Your task to perform on an android device: What's the weather going to be this weekend? Image 0: 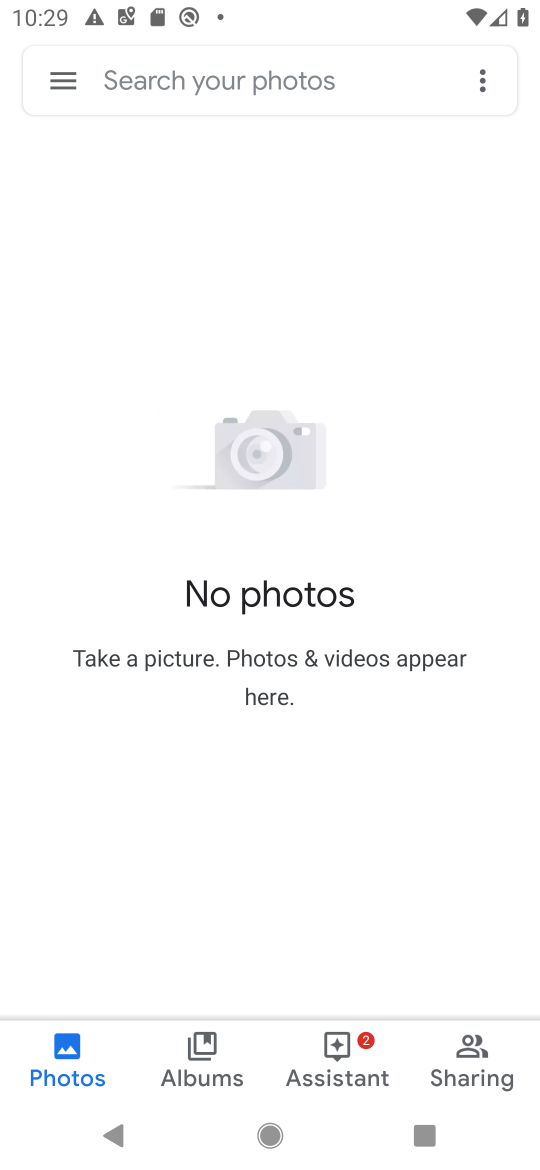
Step 0: press home button
Your task to perform on an android device: What's the weather going to be this weekend? Image 1: 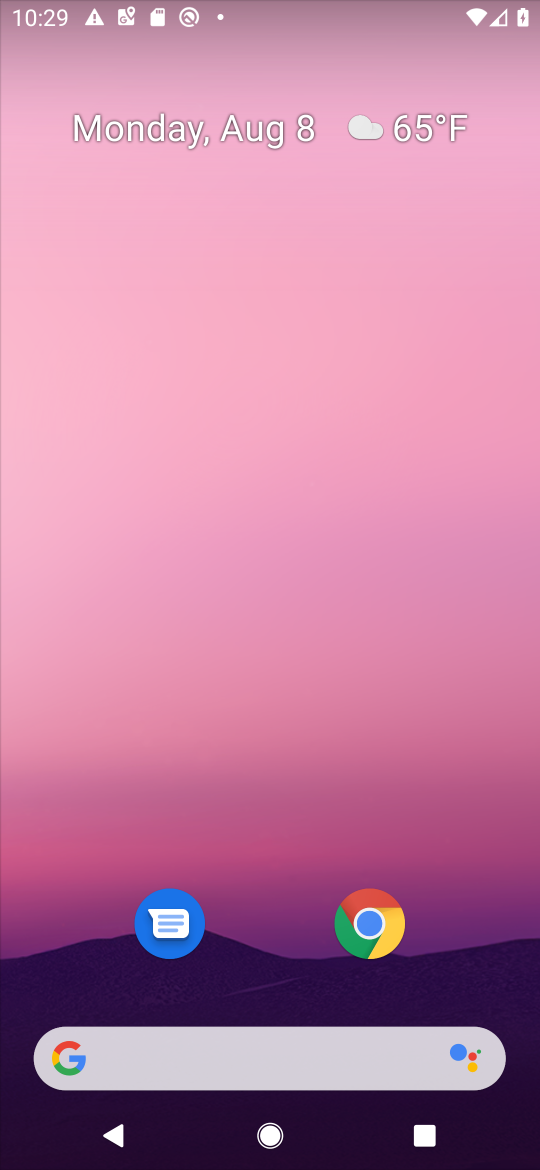
Step 1: click (108, 1054)
Your task to perform on an android device: What's the weather going to be this weekend? Image 2: 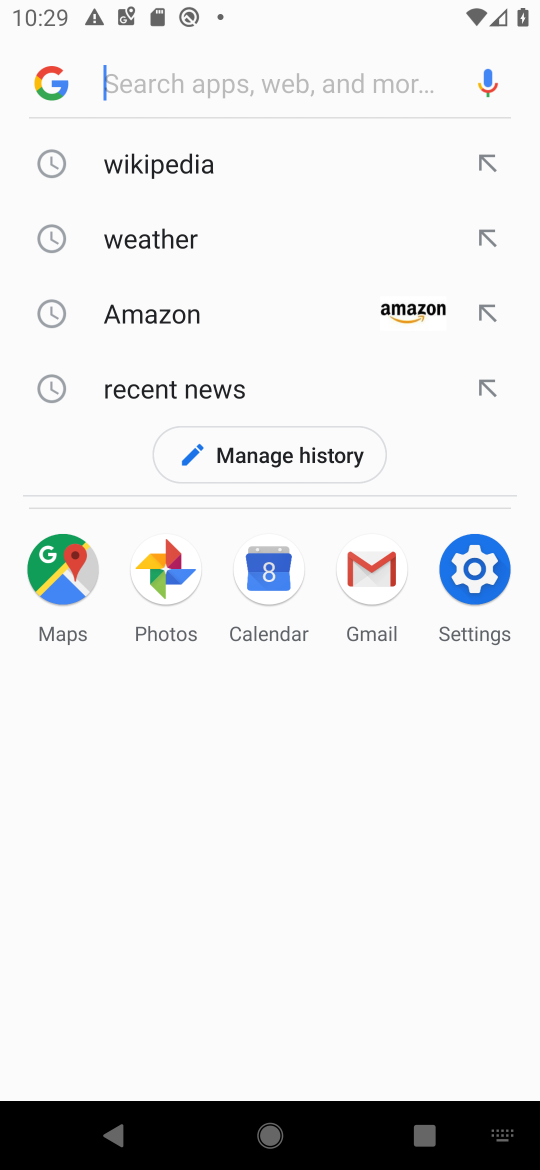
Step 2: type "What's the weather going to be this weekend?"
Your task to perform on an android device: What's the weather going to be this weekend? Image 3: 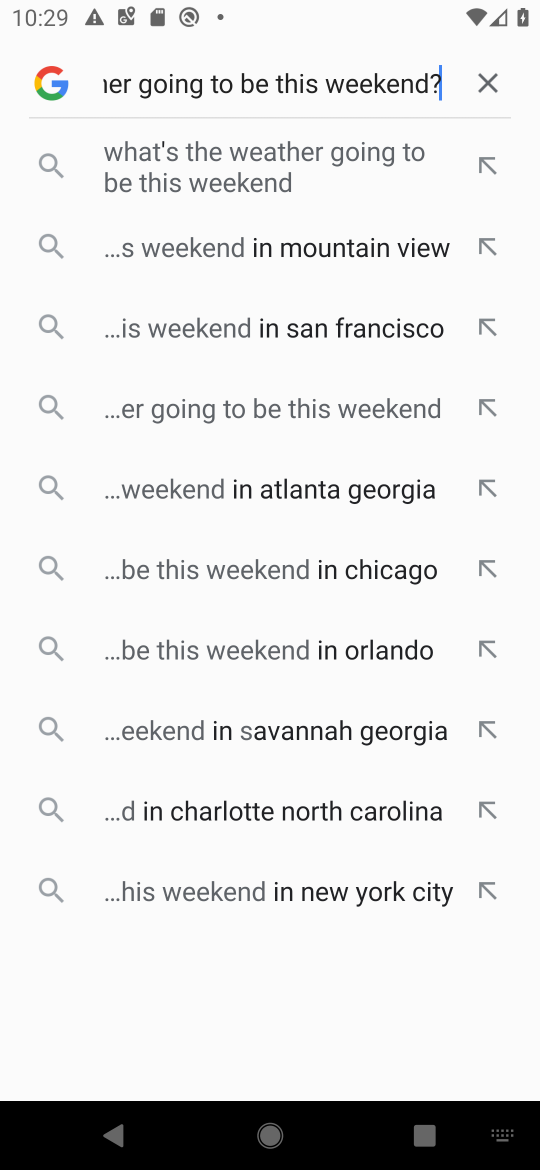
Step 3: click (258, 174)
Your task to perform on an android device: What's the weather going to be this weekend? Image 4: 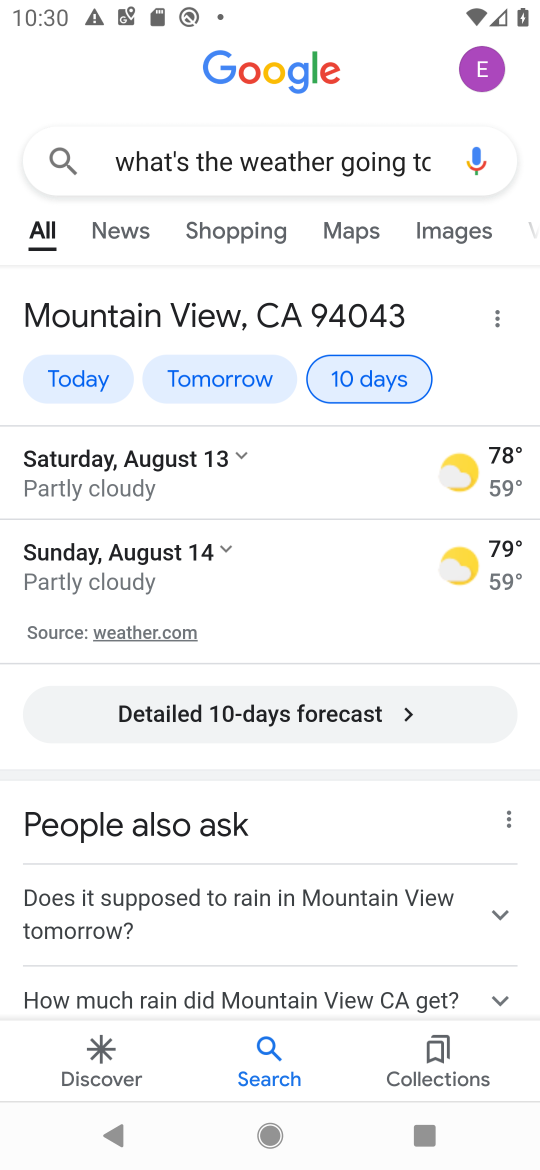
Step 4: task complete